Your task to perform on an android device: delete the emails in spam in the gmail app Image 0: 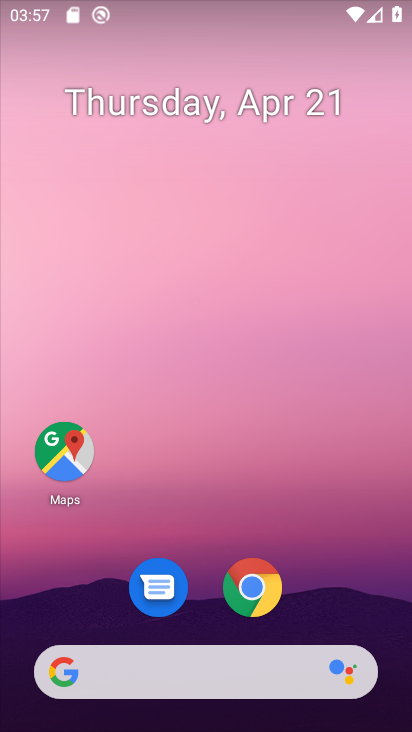
Step 0: drag from (351, 603) to (345, 213)
Your task to perform on an android device: delete the emails in spam in the gmail app Image 1: 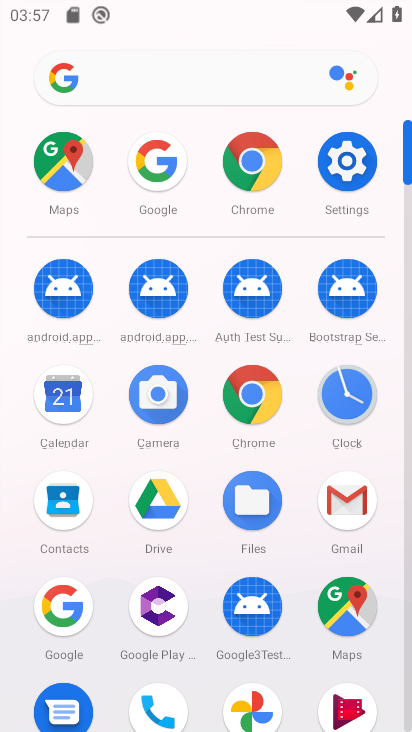
Step 1: click (341, 499)
Your task to perform on an android device: delete the emails in spam in the gmail app Image 2: 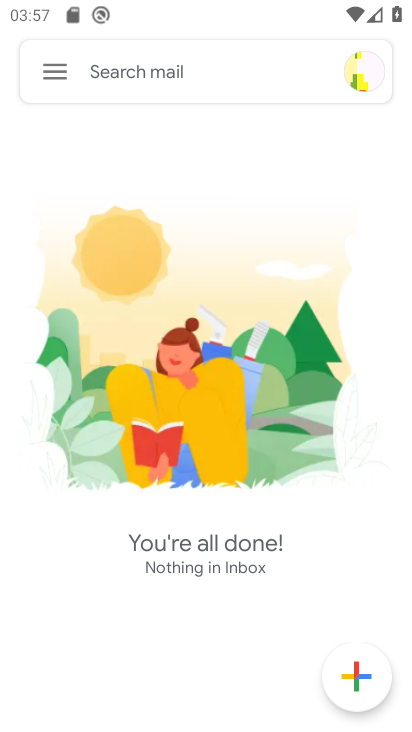
Step 2: click (66, 74)
Your task to perform on an android device: delete the emails in spam in the gmail app Image 3: 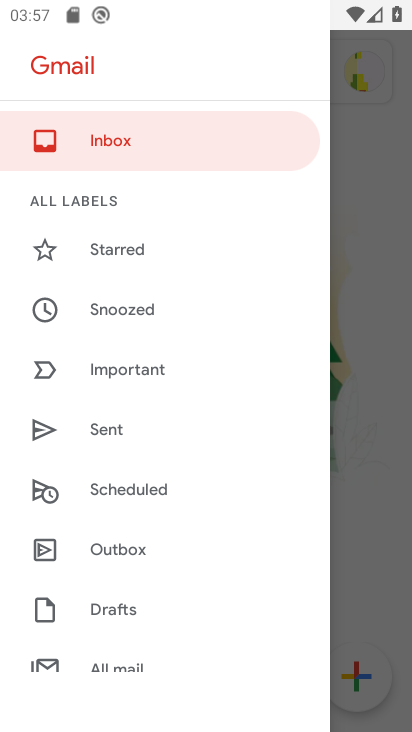
Step 3: drag from (250, 564) to (253, 244)
Your task to perform on an android device: delete the emails in spam in the gmail app Image 4: 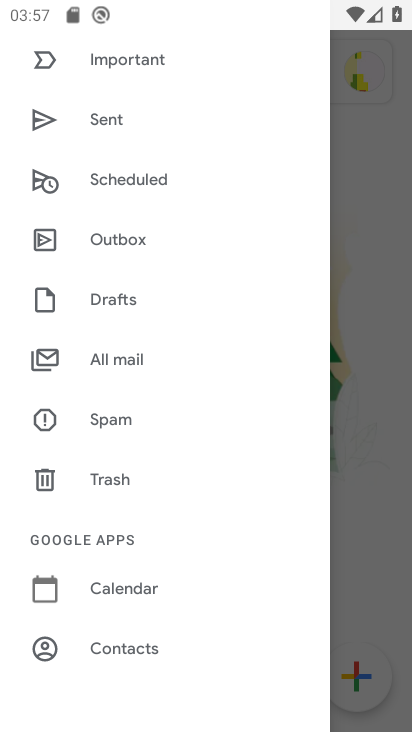
Step 4: drag from (258, 583) to (258, 286)
Your task to perform on an android device: delete the emails in spam in the gmail app Image 5: 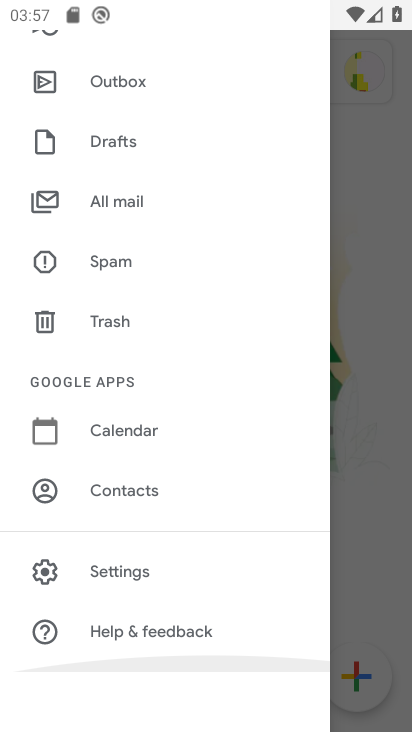
Step 5: drag from (262, 231) to (241, 559)
Your task to perform on an android device: delete the emails in spam in the gmail app Image 6: 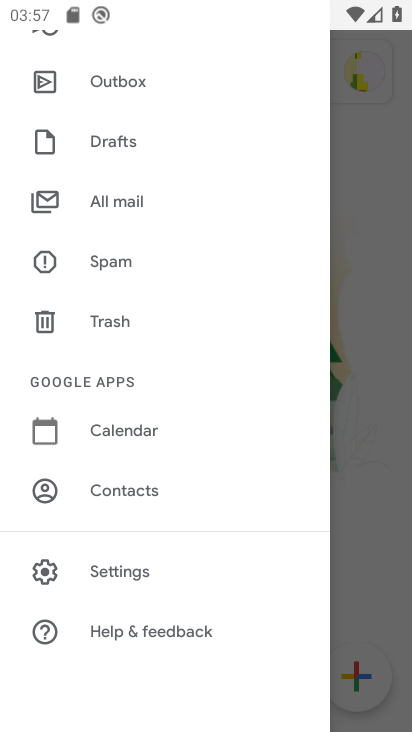
Step 6: drag from (234, 216) to (237, 577)
Your task to perform on an android device: delete the emails in spam in the gmail app Image 7: 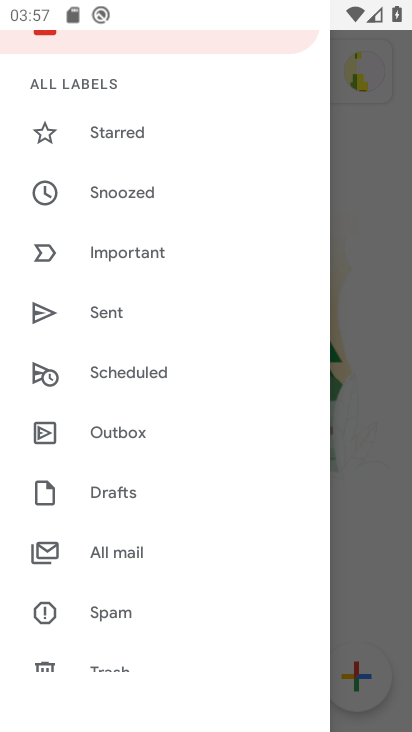
Step 7: drag from (264, 231) to (264, 527)
Your task to perform on an android device: delete the emails in spam in the gmail app Image 8: 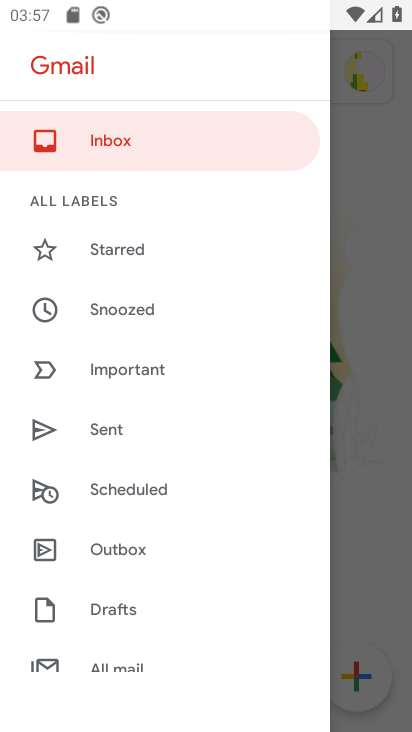
Step 8: click (181, 125)
Your task to perform on an android device: delete the emails in spam in the gmail app Image 9: 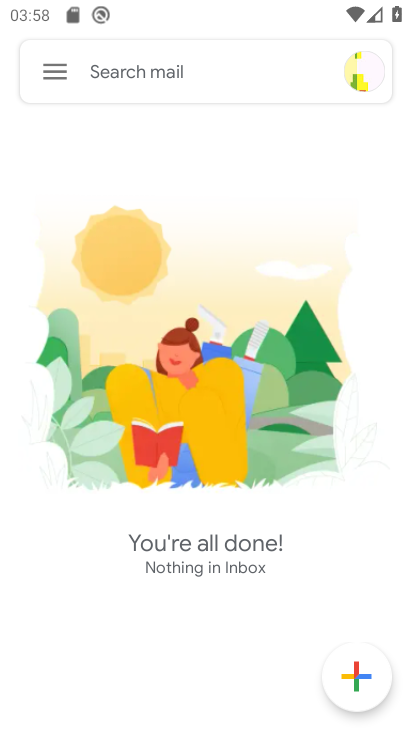
Step 9: task complete